Your task to perform on an android device: Go to Android settings Image 0: 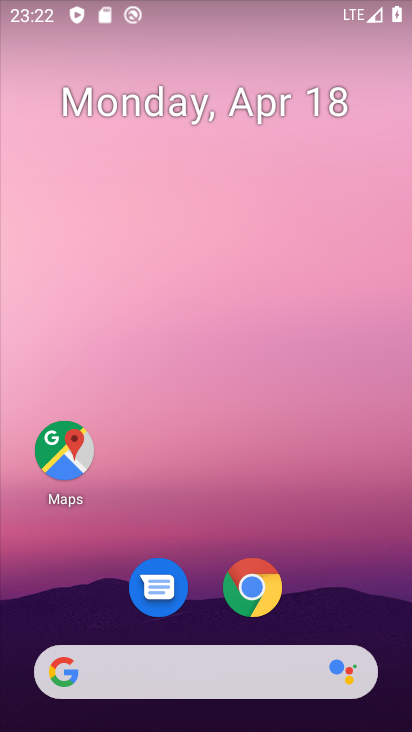
Step 0: drag from (365, 583) to (337, 136)
Your task to perform on an android device: Go to Android settings Image 1: 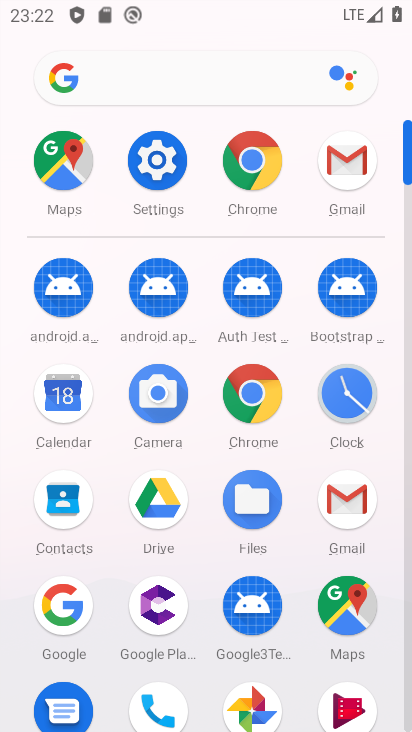
Step 1: click (158, 178)
Your task to perform on an android device: Go to Android settings Image 2: 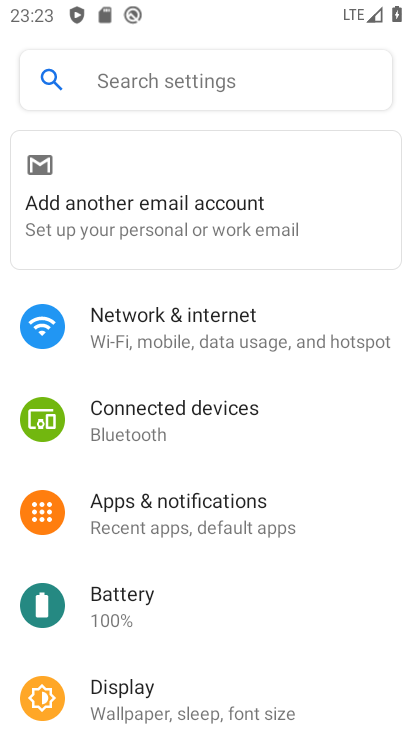
Step 2: drag from (230, 659) to (321, 262)
Your task to perform on an android device: Go to Android settings Image 3: 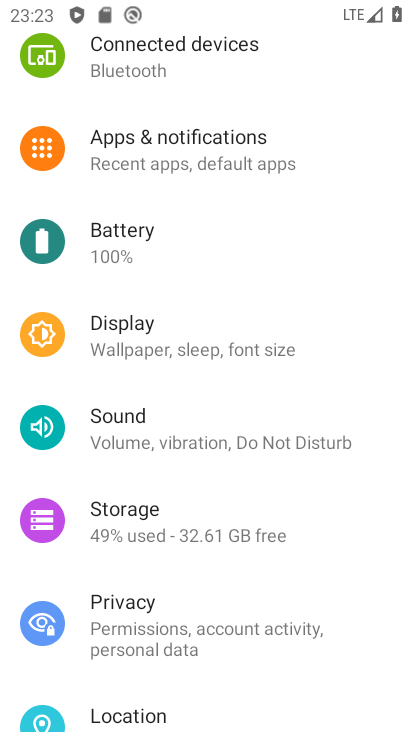
Step 3: drag from (313, 542) to (362, 207)
Your task to perform on an android device: Go to Android settings Image 4: 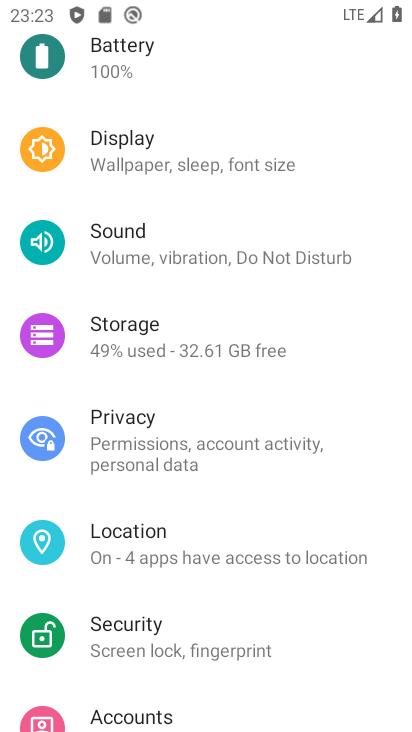
Step 4: drag from (348, 635) to (346, 263)
Your task to perform on an android device: Go to Android settings Image 5: 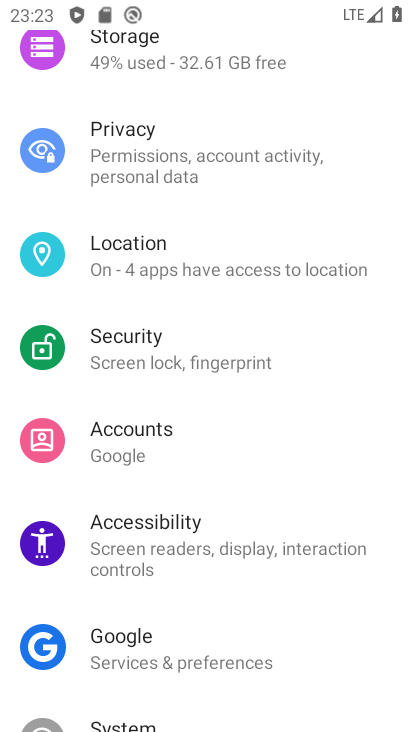
Step 5: drag from (339, 657) to (378, 208)
Your task to perform on an android device: Go to Android settings Image 6: 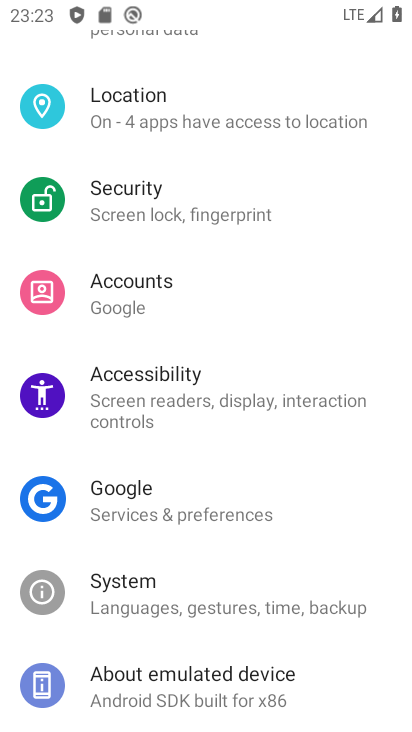
Step 6: click (256, 666)
Your task to perform on an android device: Go to Android settings Image 7: 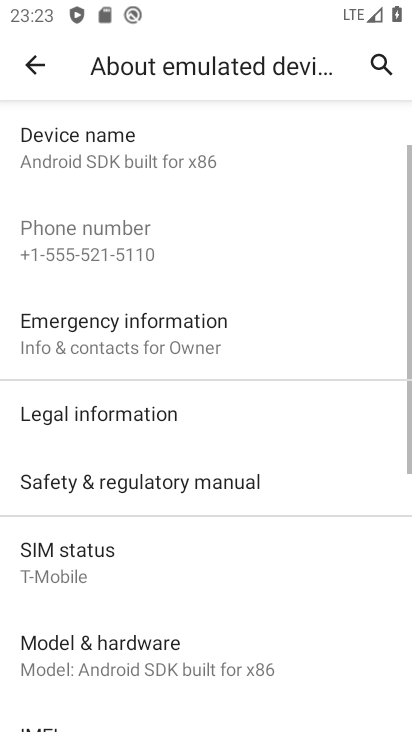
Step 7: task complete